Your task to perform on an android device: turn on priority inbox in the gmail app Image 0: 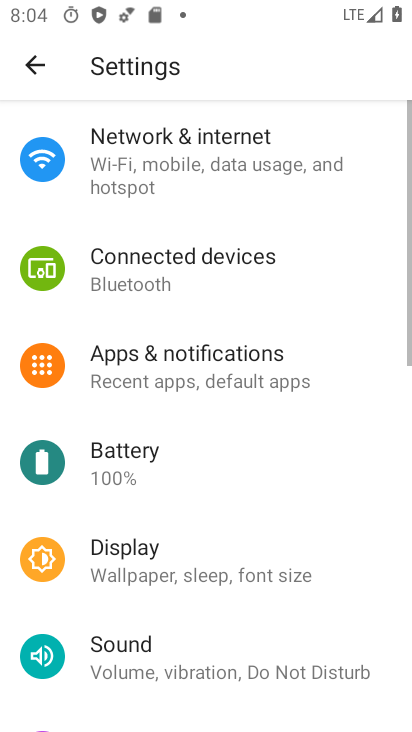
Step 0: press home button
Your task to perform on an android device: turn on priority inbox in the gmail app Image 1: 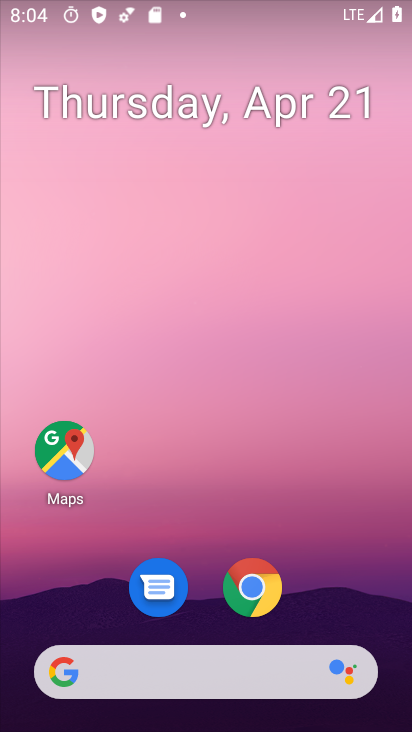
Step 1: drag from (369, 609) to (335, 82)
Your task to perform on an android device: turn on priority inbox in the gmail app Image 2: 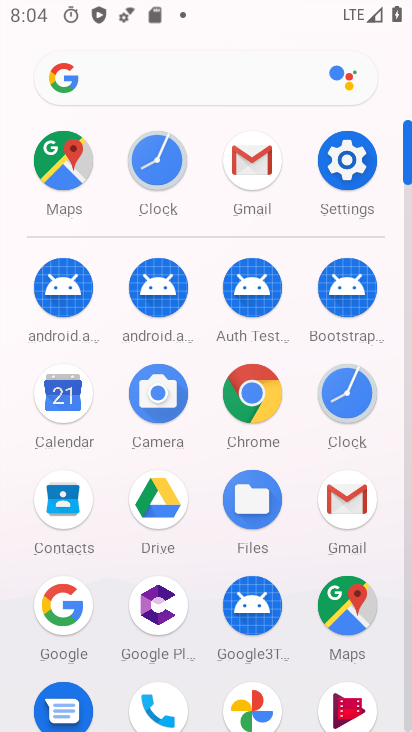
Step 2: click (339, 505)
Your task to perform on an android device: turn on priority inbox in the gmail app Image 3: 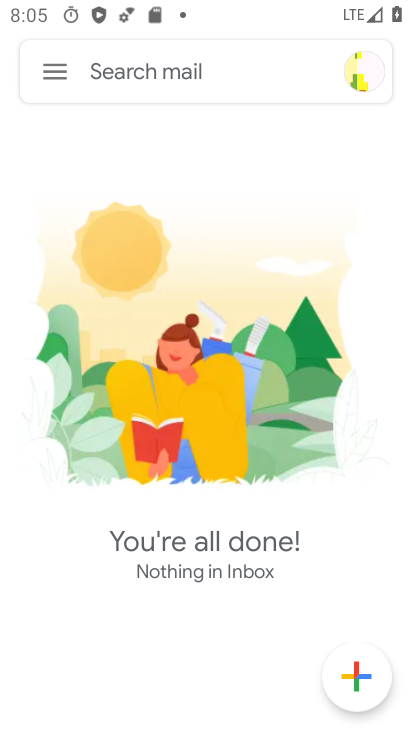
Step 3: click (38, 78)
Your task to perform on an android device: turn on priority inbox in the gmail app Image 4: 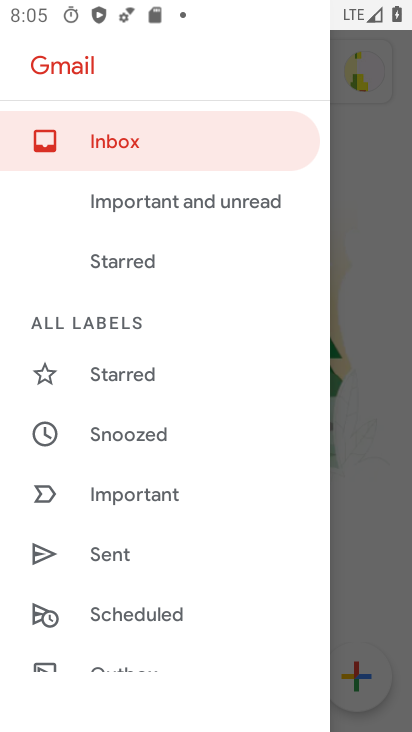
Step 4: drag from (218, 620) to (244, 237)
Your task to perform on an android device: turn on priority inbox in the gmail app Image 5: 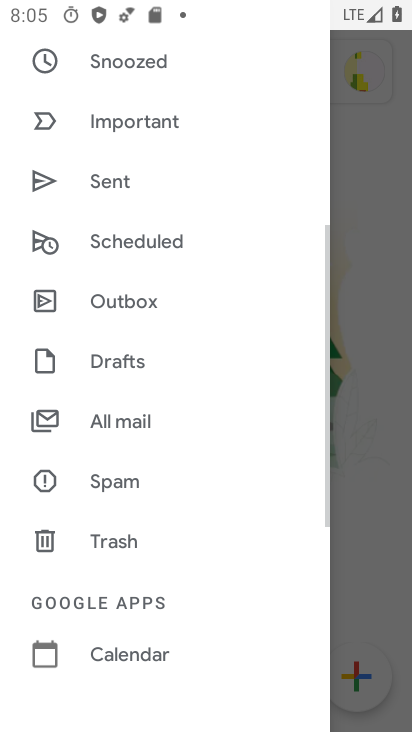
Step 5: drag from (240, 651) to (257, 185)
Your task to perform on an android device: turn on priority inbox in the gmail app Image 6: 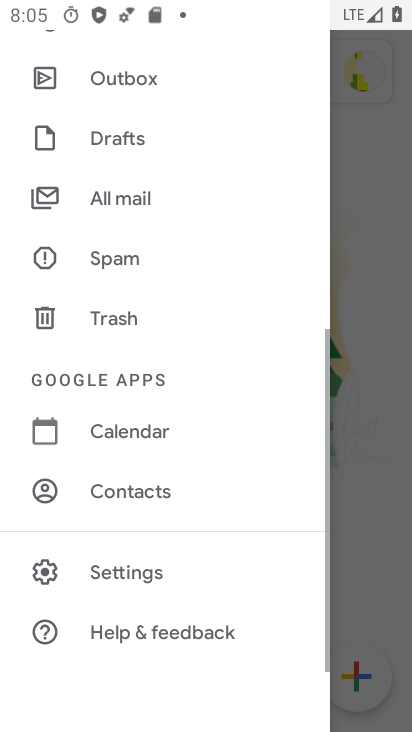
Step 6: click (116, 573)
Your task to perform on an android device: turn on priority inbox in the gmail app Image 7: 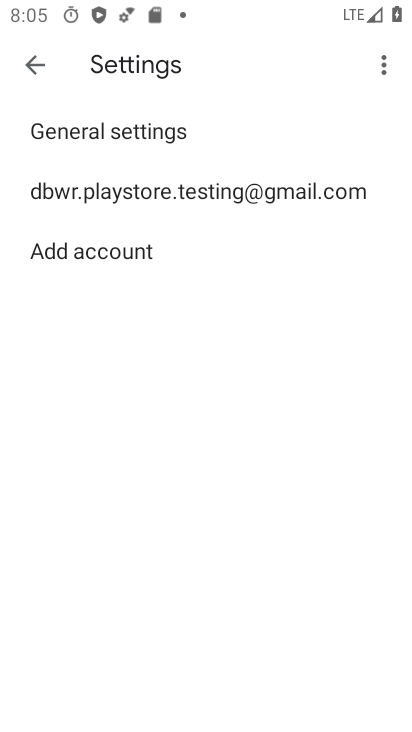
Step 7: click (55, 188)
Your task to perform on an android device: turn on priority inbox in the gmail app Image 8: 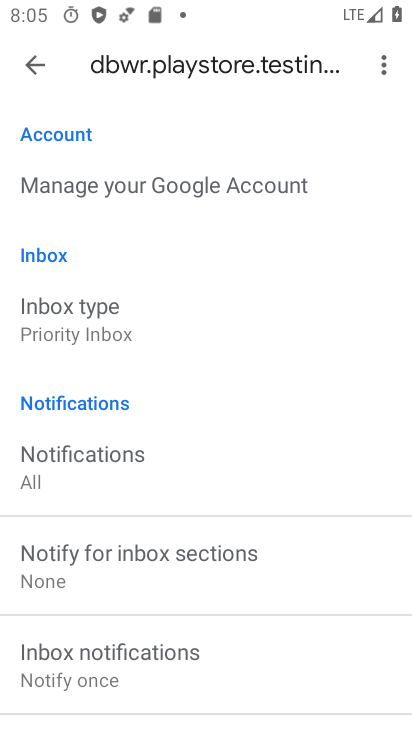
Step 8: click (73, 317)
Your task to perform on an android device: turn on priority inbox in the gmail app Image 9: 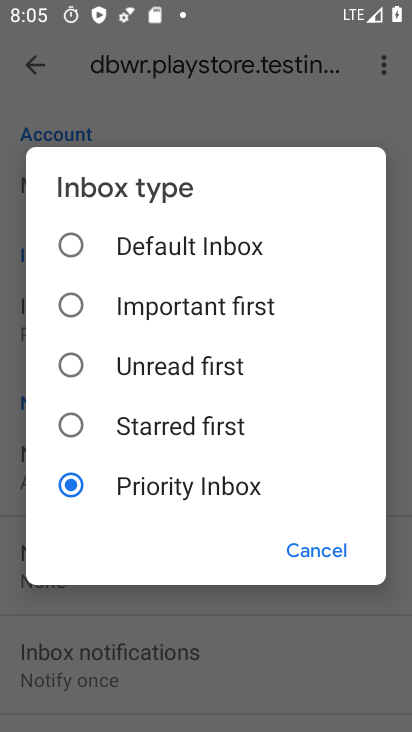
Step 9: task complete